Your task to perform on an android device: Show me productivity apps on the Play Store Image 0: 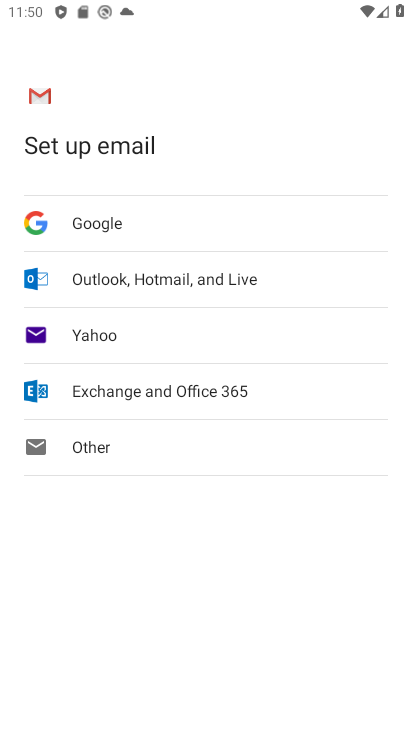
Step 0: press home button
Your task to perform on an android device: Show me productivity apps on the Play Store Image 1: 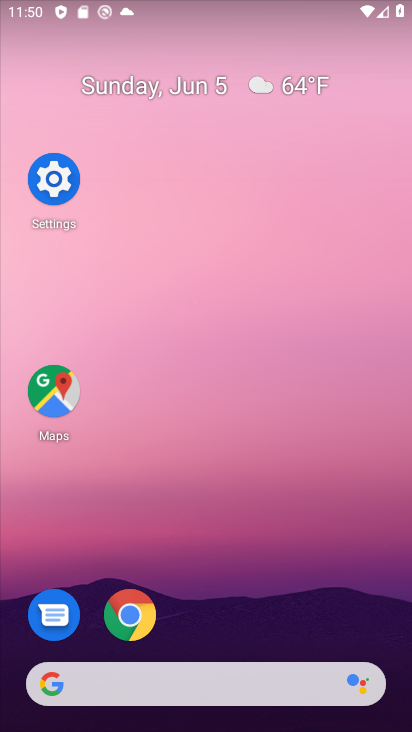
Step 1: drag from (244, 627) to (264, 107)
Your task to perform on an android device: Show me productivity apps on the Play Store Image 2: 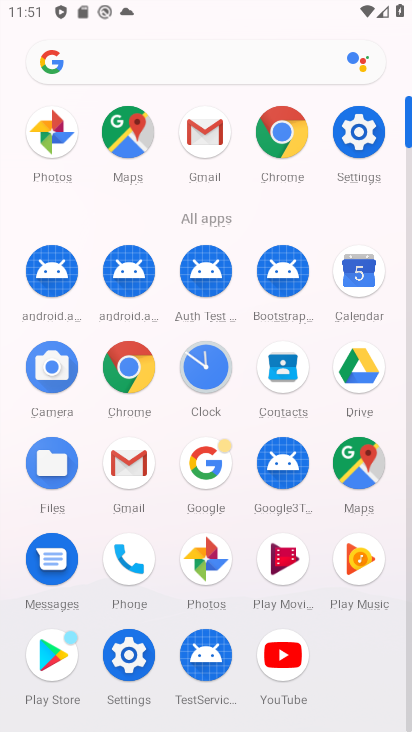
Step 2: drag from (47, 643) to (66, 299)
Your task to perform on an android device: Show me productivity apps on the Play Store Image 3: 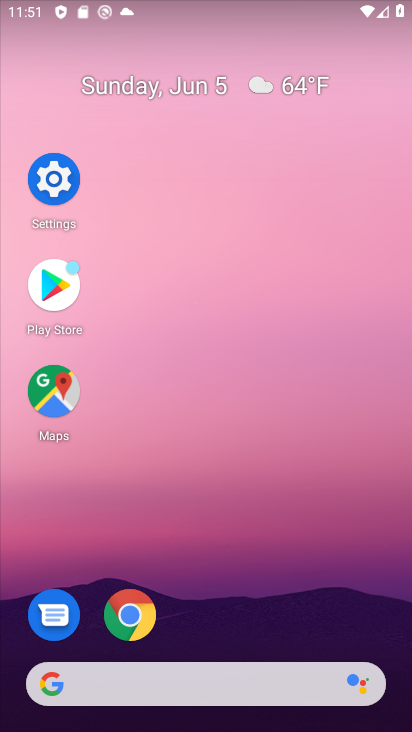
Step 3: click (64, 297)
Your task to perform on an android device: Show me productivity apps on the Play Store Image 4: 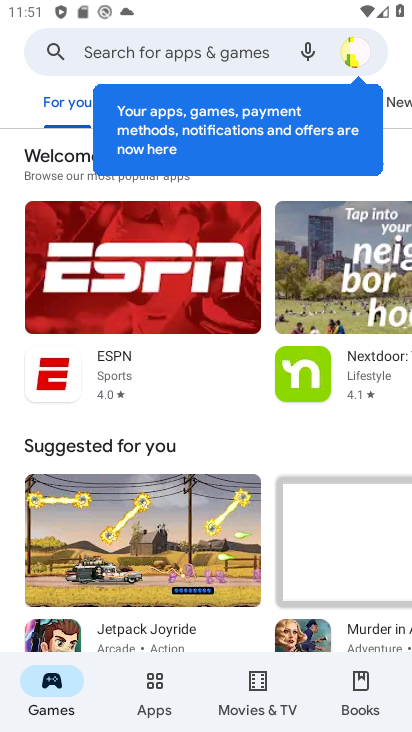
Step 4: click (172, 704)
Your task to perform on an android device: Show me productivity apps on the Play Store Image 5: 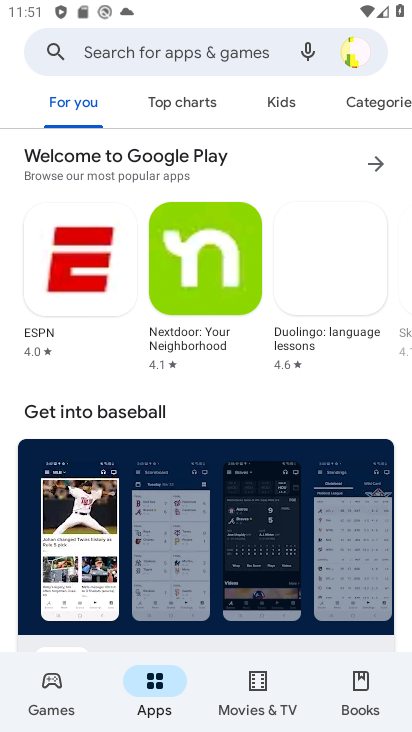
Step 5: click (386, 107)
Your task to perform on an android device: Show me productivity apps on the Play Store Image 6: 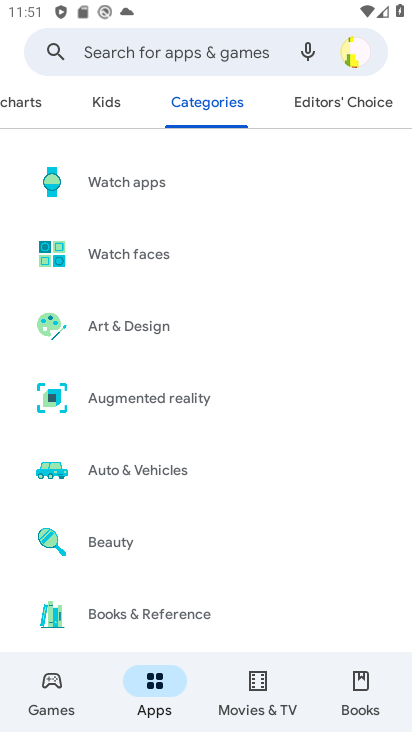
Step 6: drag from (234, 543) to (257, 158)
Your task to perform on an android device: Show me productivity apps on the Play Store Image 7: 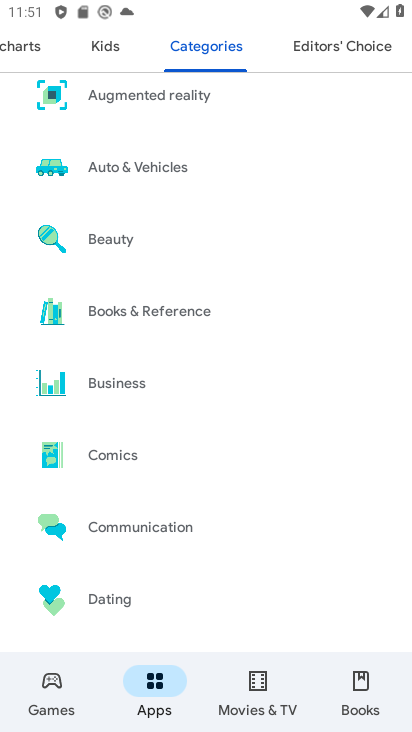
Step 7: drag from (257, 565) to (261, 167)
Your task to perform on an android device: Show me productivity apps on the Play Store Image 8: 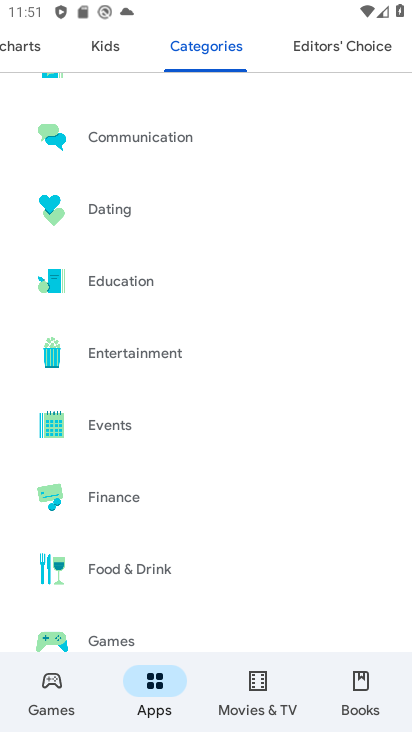
Step 8: drag from (267, 565) to (323, 119)
Your task to perform on an android device: Show me productivity apps on the Play Store Image 9: 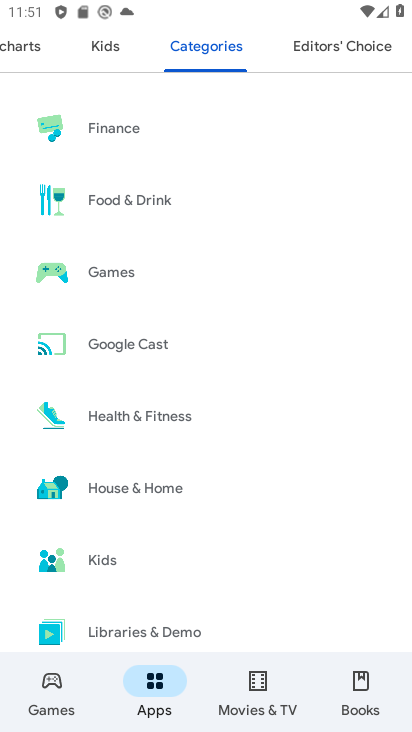
Step 9: drag from (237, 567) to (298, 114)
Your task to perform on an android device: Show me productivity apps on the Play Store Image 10: 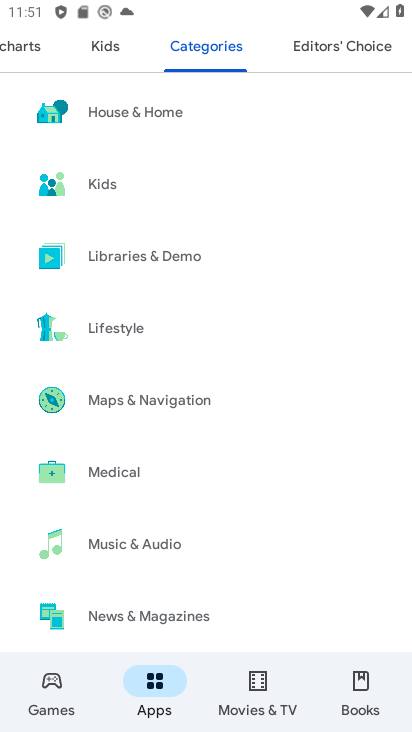
Step 10: drag from (204, 531) to (225, 131)
Your task to perform on an android device: Show me productivity apps on the Play Store Image 11: 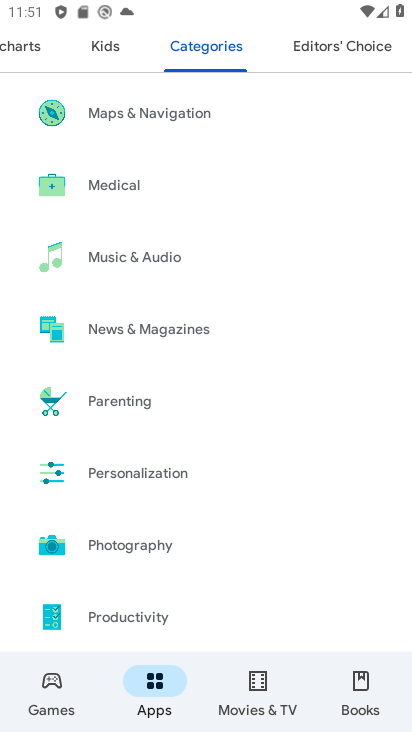
Step 11: click (148, 619)
Your task to perform on an android device: Show me productivity apps on the Play Store Image 12: 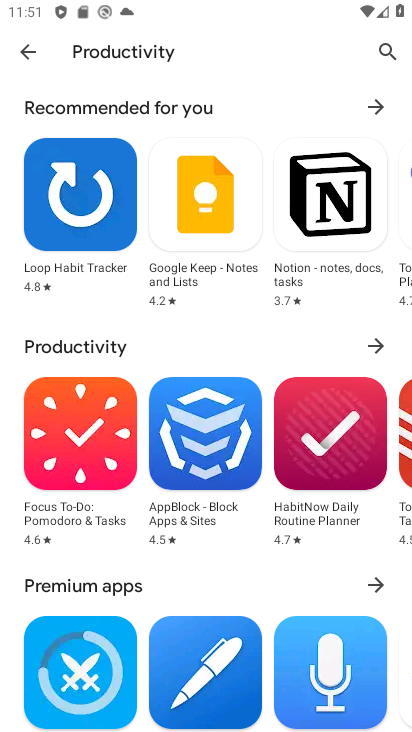
Step 12: task complete